Your task to perform on an android device: Check the news Image 0: 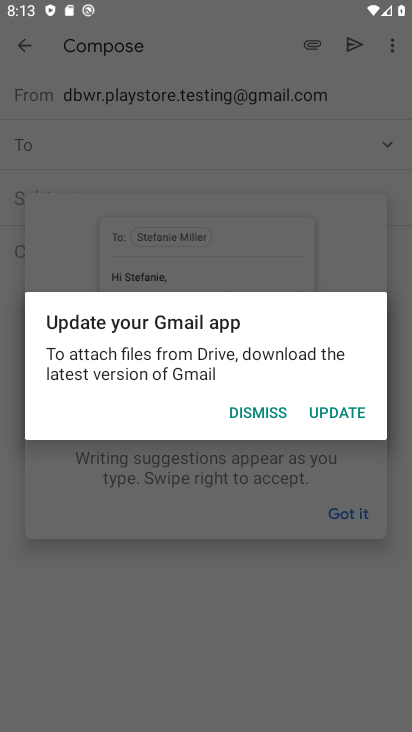
Step 0: press home button
Your task to perform on an android device: Check the news Image 1: 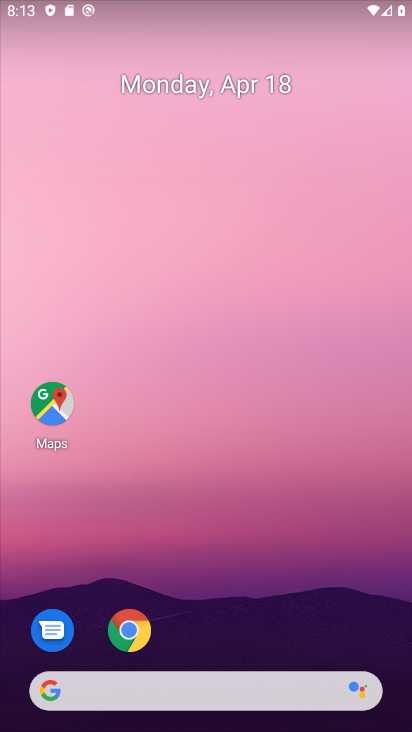
Step 1: click (122, 627)
Your task to perform on an android device: Check the news Image 2: 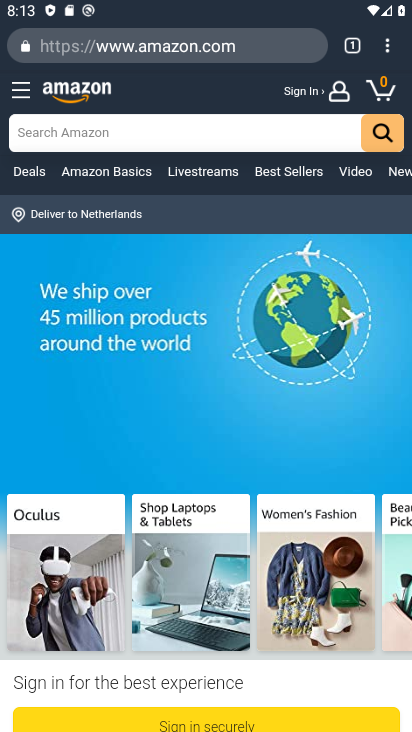
Step 2: click (270, 47)
Your task to perform on an android device: Check the news Image 3: 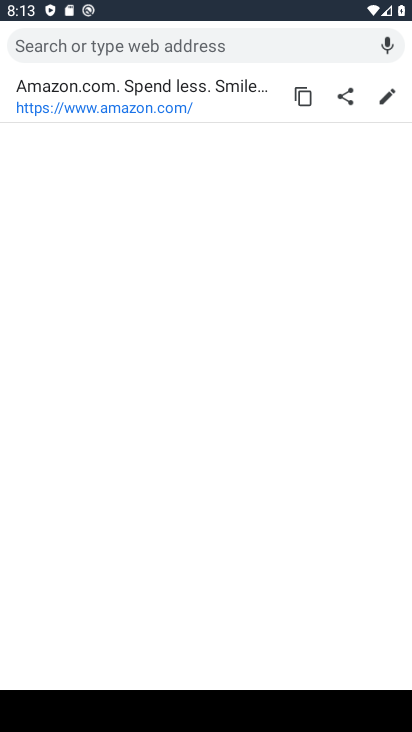
Step 3: type "news"
Your task to perform on an android device: Check the news Image 4: 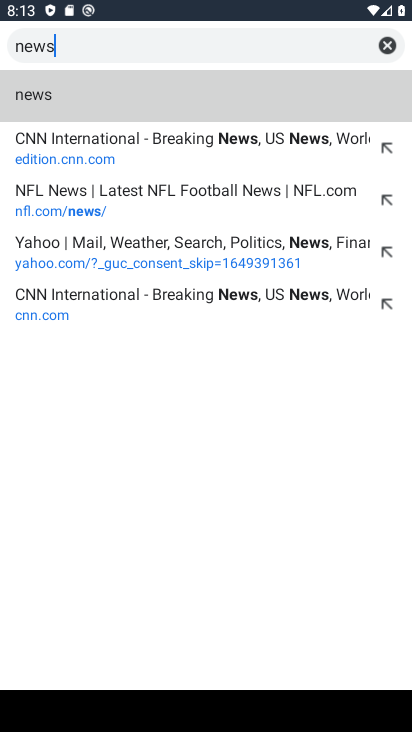
Step 4: click (204, 105)
Your task to perform on an android device: Check the news Image 5: 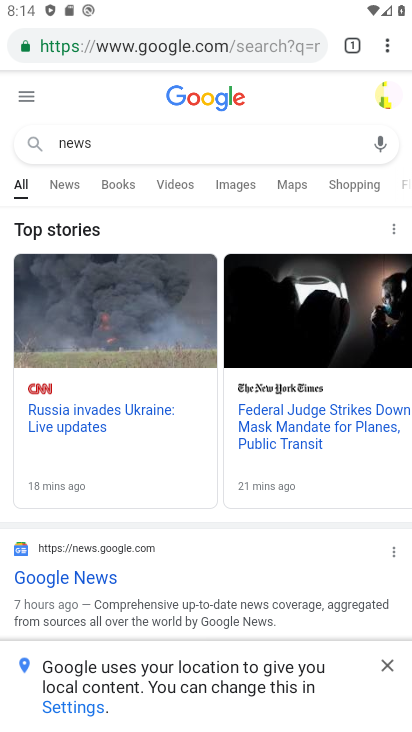
Step 5: task complete